Your task to perform on an android device: turn off priority inbox in the gmail app Image 0: 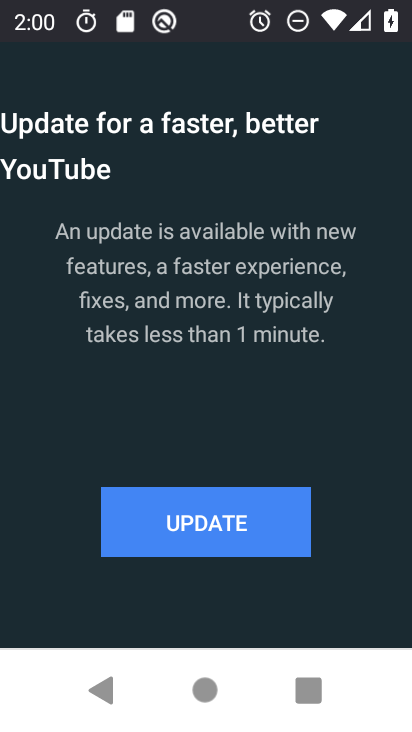
Step 0: press home button
Your task to perform on an android device: turn off priority inbox in the gmail app Image 1: 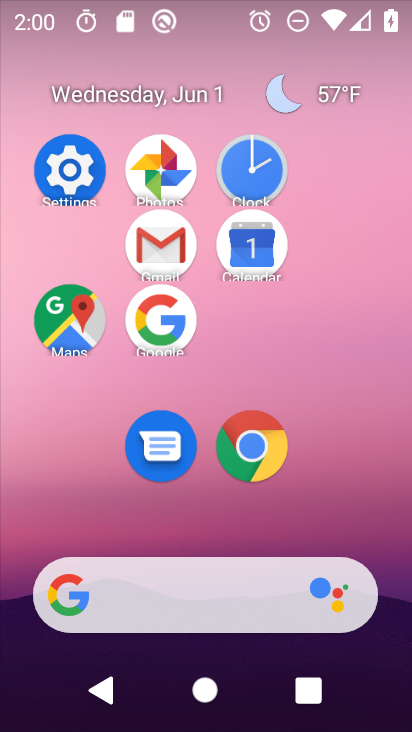
Step 1: click (178, 261)
Your task to perform on an android device: turn off priority inbox in the gmail app Image 2: 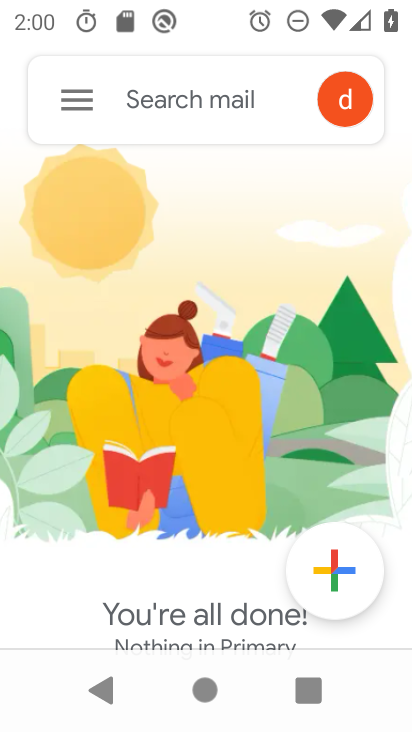
Step 2: click (94, 107)
Your task to perform on an android device: turn off priority inbox in the gmail app Image 3: 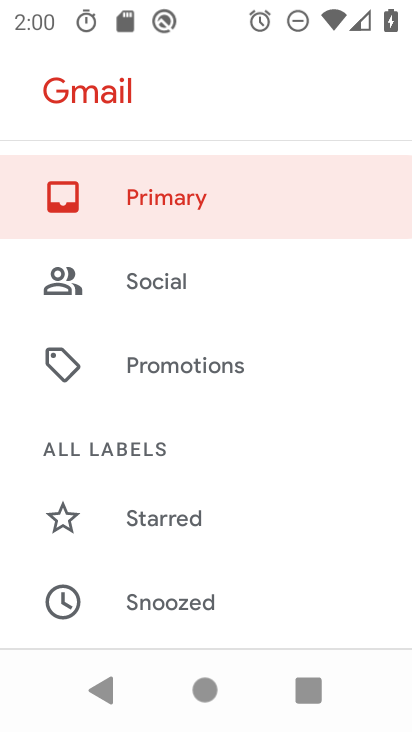
Step 3: drag from (246, 523) to (267, 136)
Your task to perform on an android device: turn off priority inbox in the gmail app Image 4: 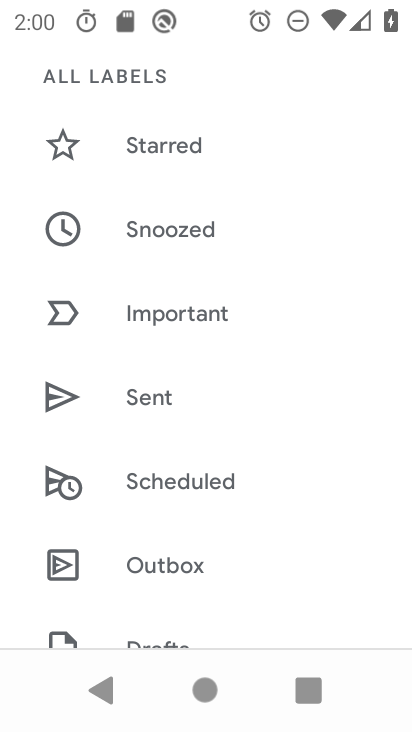
Step 4: drag from (231, 560) to (239, 370)
Your task to perform on an android device: turn off priority inbox in the gmail app Image 5: 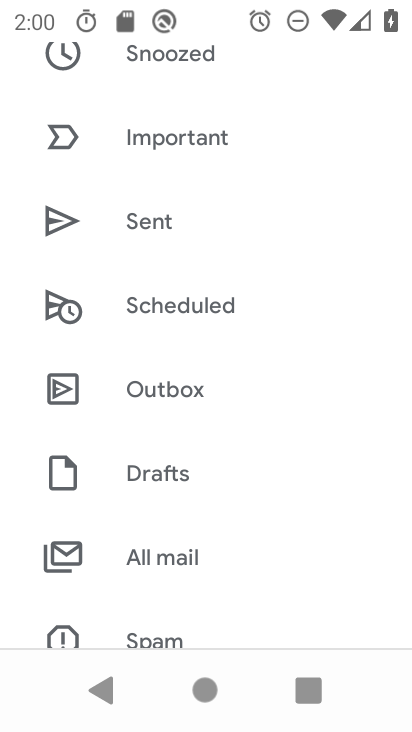
Step 5: drag from (313, 615) to (204, 246)
Your task to perform on an android device: turn off priority inbox in the gmail app Image 6: 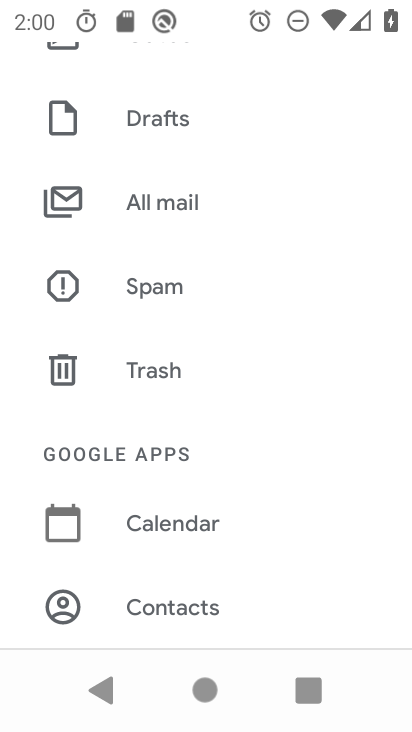
Step 6: drag from (185, 522) to (181, 223)
Your task to perform on an android device: turn off priority inbox in the gmail app Image 7: 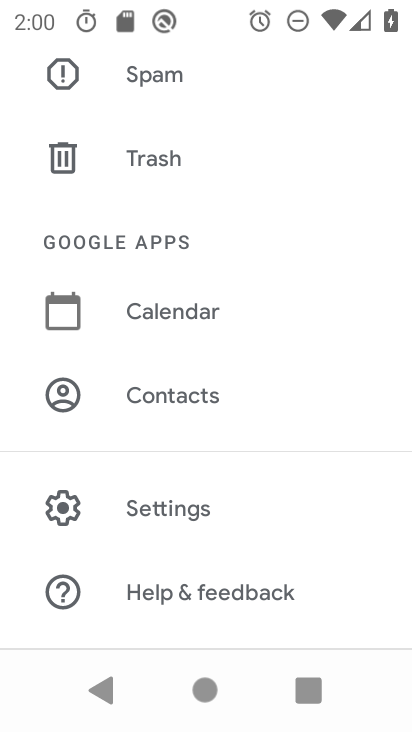
Step 7: click (217, 502)
Your task to perform on an android device: turn off priority inbox in the gmail app Image 8: 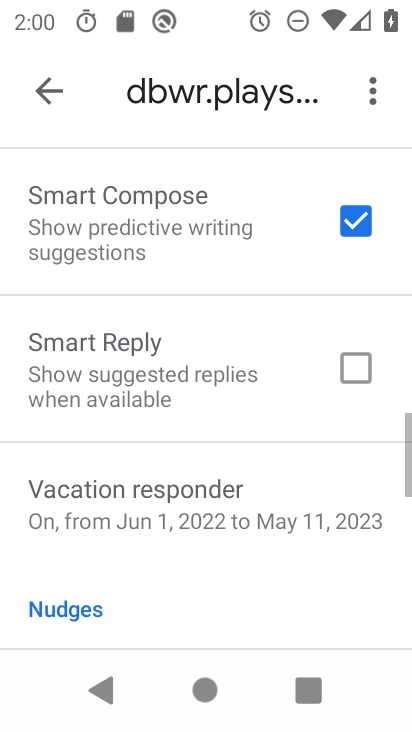
Step 8: drag from (214, 186) to (274, 673)
Your task to perform on an android device: turn off priority inbox in the gmail app Image 9: 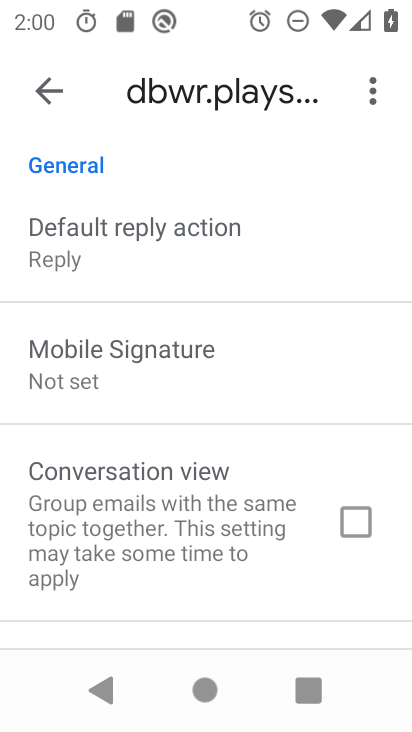
Step 9: drag from (265, 200) to (279, 646)
Your task to perform on an android device: turn off priority inbox in the gmail app Image 10: 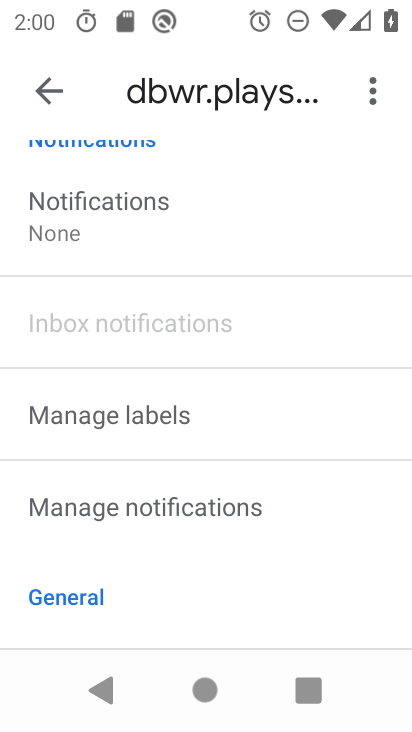
Step 10: drag from (224, 223) to (288, 658)
Your task to perform on an android device: turn off priority inbox in the gmail app Image 11: 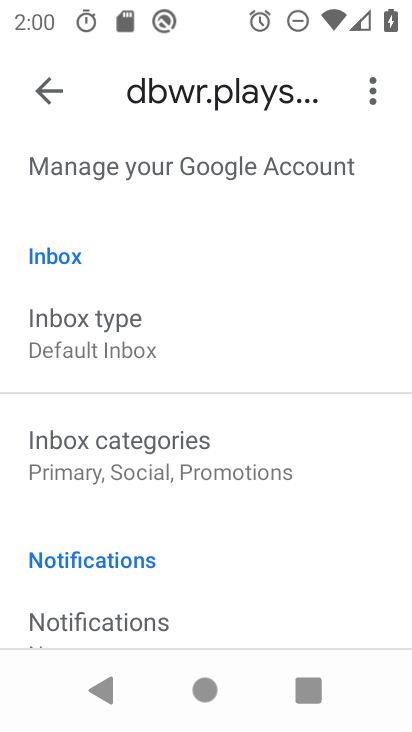
Step 11: click (180, 337)
Your task to perform on an android device: turn off priority inbox in the gmail app Image 12: 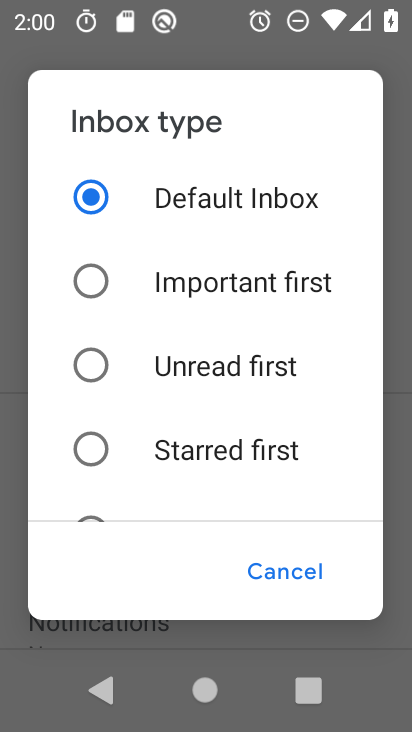
Step 12: task complete